Your task to perform on an android device: turn on sleep mode Image 0: 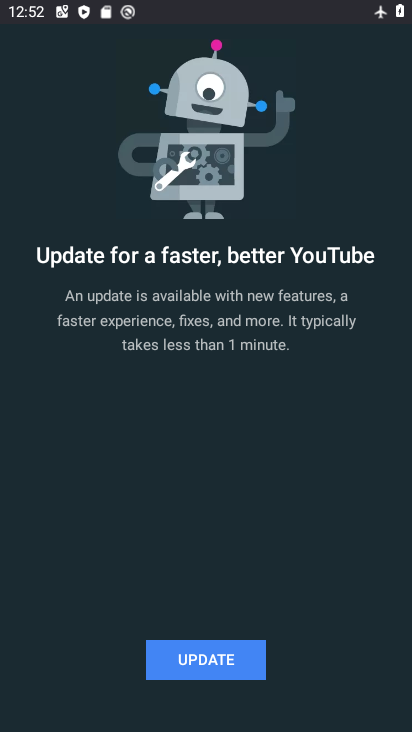
Step 0: press home button
Your task to perform on an android device: turn on sleep mode Image 1: 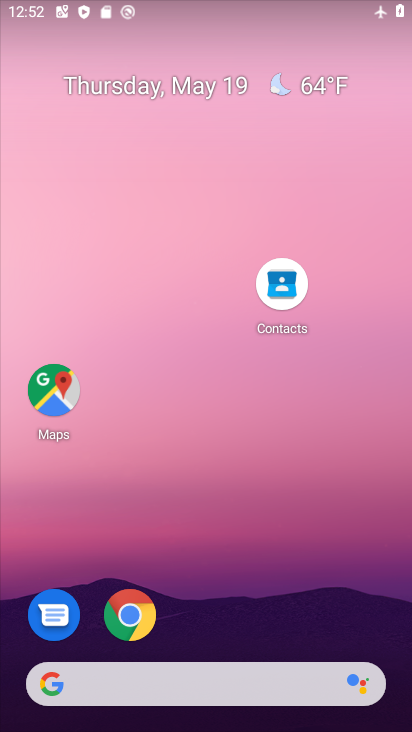
Step 1: drag from (250, 572) to (308, 218)
Your task to perform on an android device: turn on sleep mode Image 2: 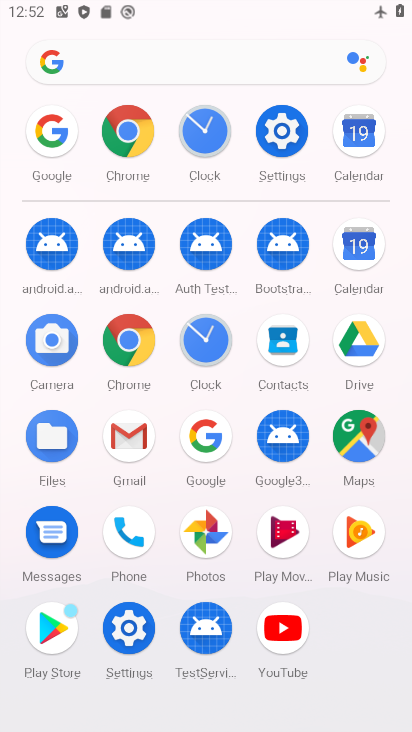
Step 2: click (304, 124)
Your task to perform on an android device: turn on sleep mode Image 3: 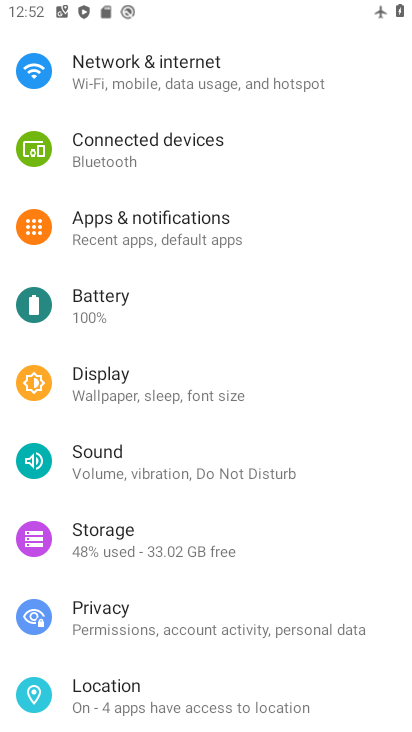
Step 3: drag from (272, 354) to (262, 475)
Your task to perform on an android device: turn on sleep mode Image 4: 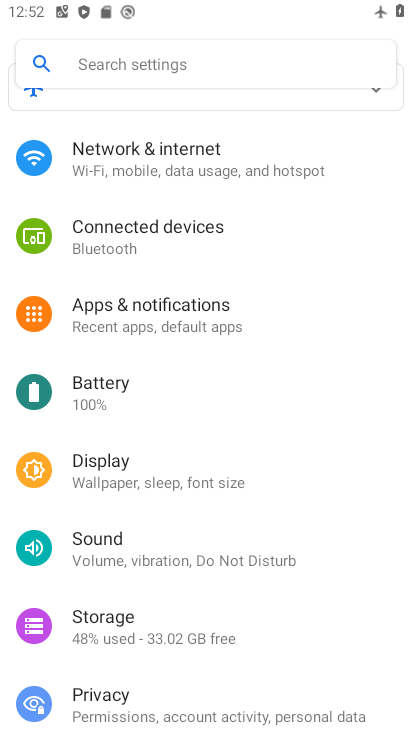
Step 4: drag from (276, 318) to (259, 466)
Your task to perform on an android device: turn on sleep mode Image 5: 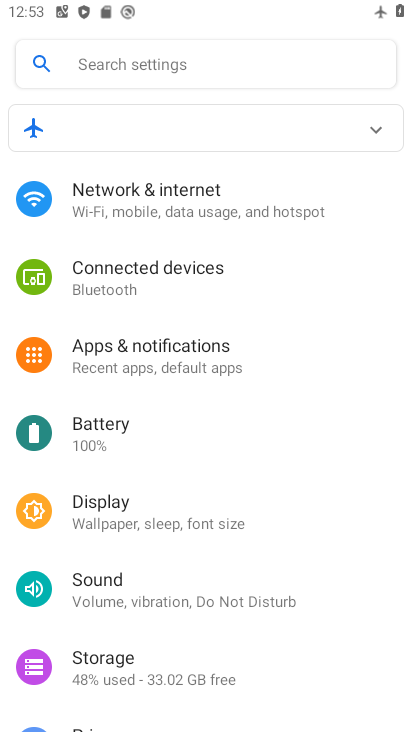
Step 5: drag from (212, 574) to (271, 345)
Your task to perform on an android device: turn on sleep mode Image 6: 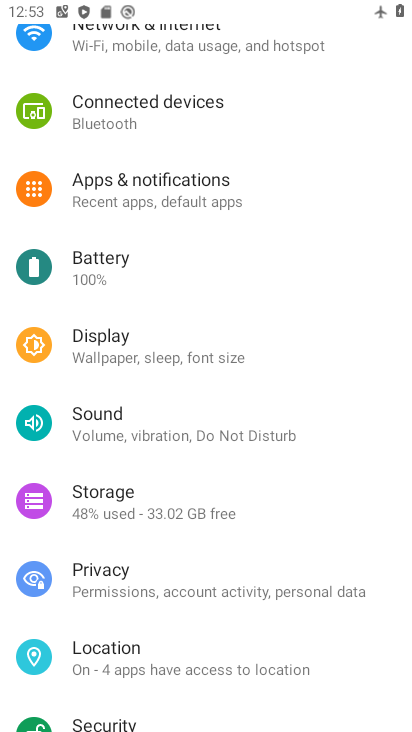
Step 6: drag from (259, 475) to (275, 274)
Your task to perform on an android device: turn on sleep mode Image 7: 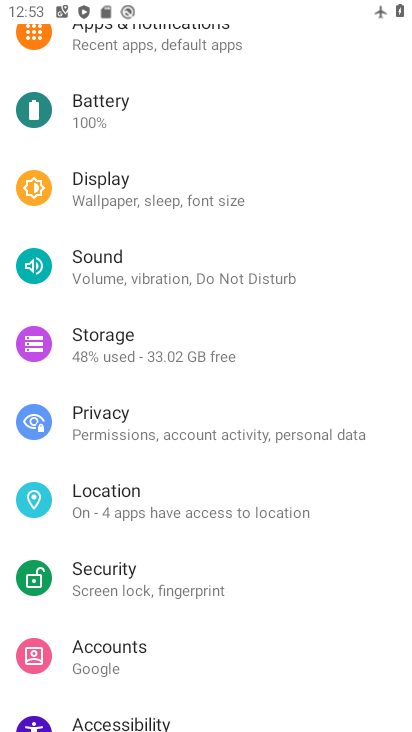
Step 7: click (153, 192)
Your task to perform on an android device: turn on sleep mode Image 8: 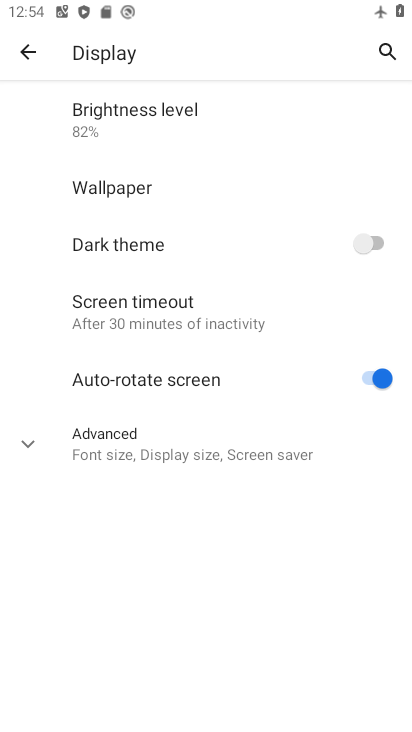
Step 8: task complete